Your task to perform on an android device: Open internet settings Image 0: 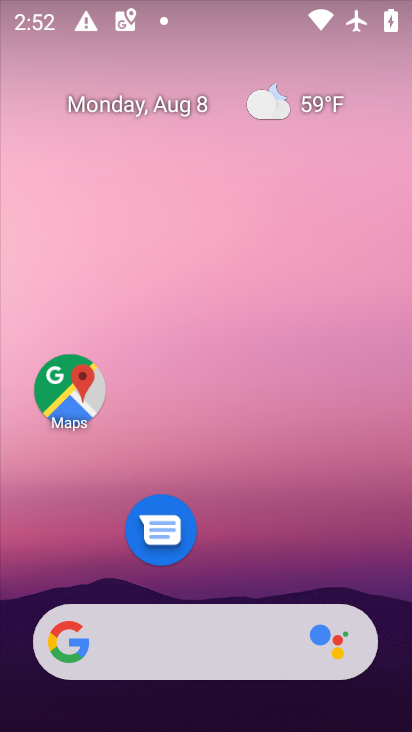
Step 0: drag from (227, 340) to (227, 12)
Your task to perform on an android device: Open internet settings Image 1: 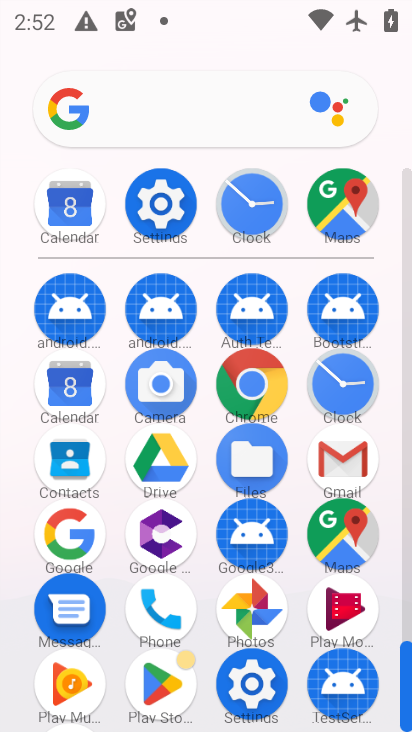
Step 1: click (181, 211)
Your task to perform on an android device: Open internet settings Image 2: 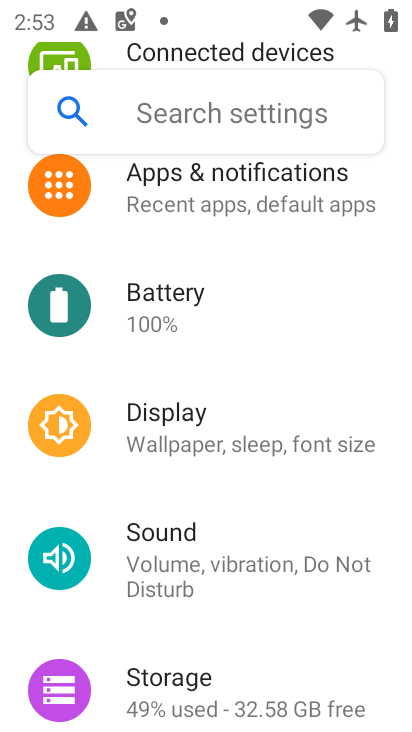
Step 2: drag from (160, 254) to (143, 656)
Your task to perform on an android device: Open internet settings Image 3: 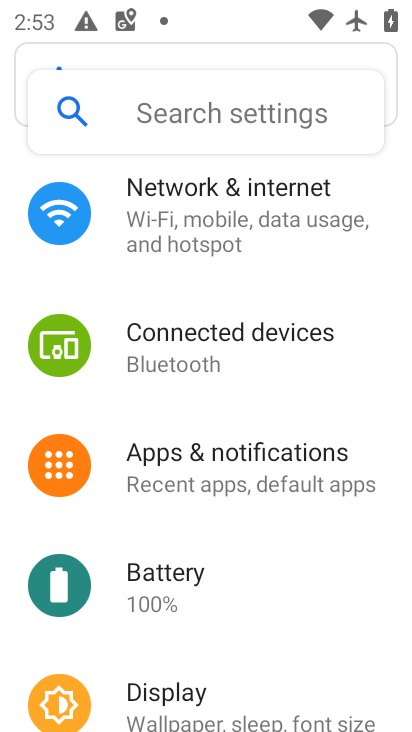
Step 3: click (196, 210)
Your task to perform on an android device: Open internet settings Image 4: 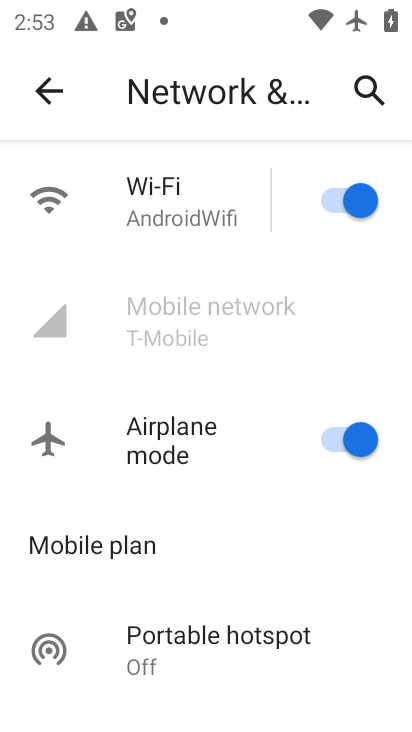
Step 4: task complete